Your task to perform on an android device: Do I have any events tomorrow? Image 0: 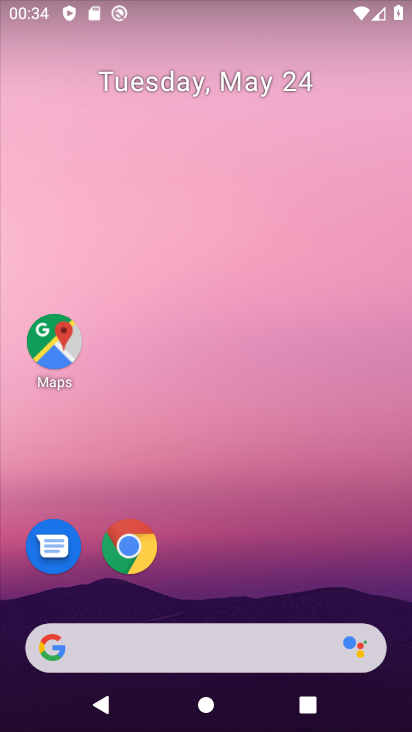
Step 0: drag from (288, 631) to (301, 0)
Your task to perform on an android device: Do I have any events tomorrow? Image 1: 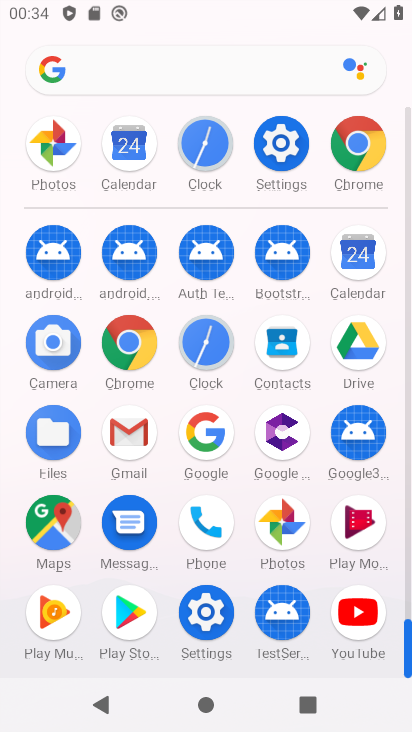
Step 1: click (357, 252)
Your task to perform on an android device: Do I have any events tomorrow? Image 2: 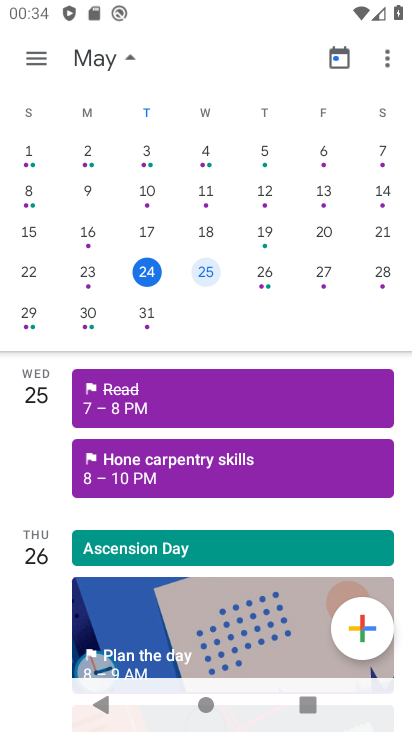
Step 2: click (203, 270)
Your task to perform on an android device: Do I have any events tomorrow? Image 3: 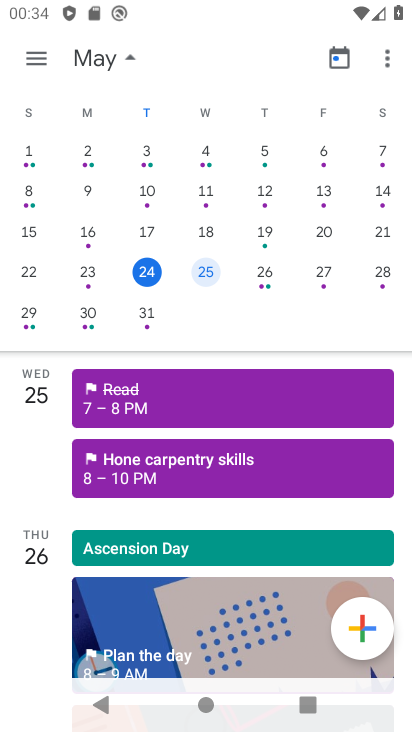
Step 3: task complete